Your task to perform on an android device: Open Google Chrome and click the shortcut for Amazon.com Image 0: 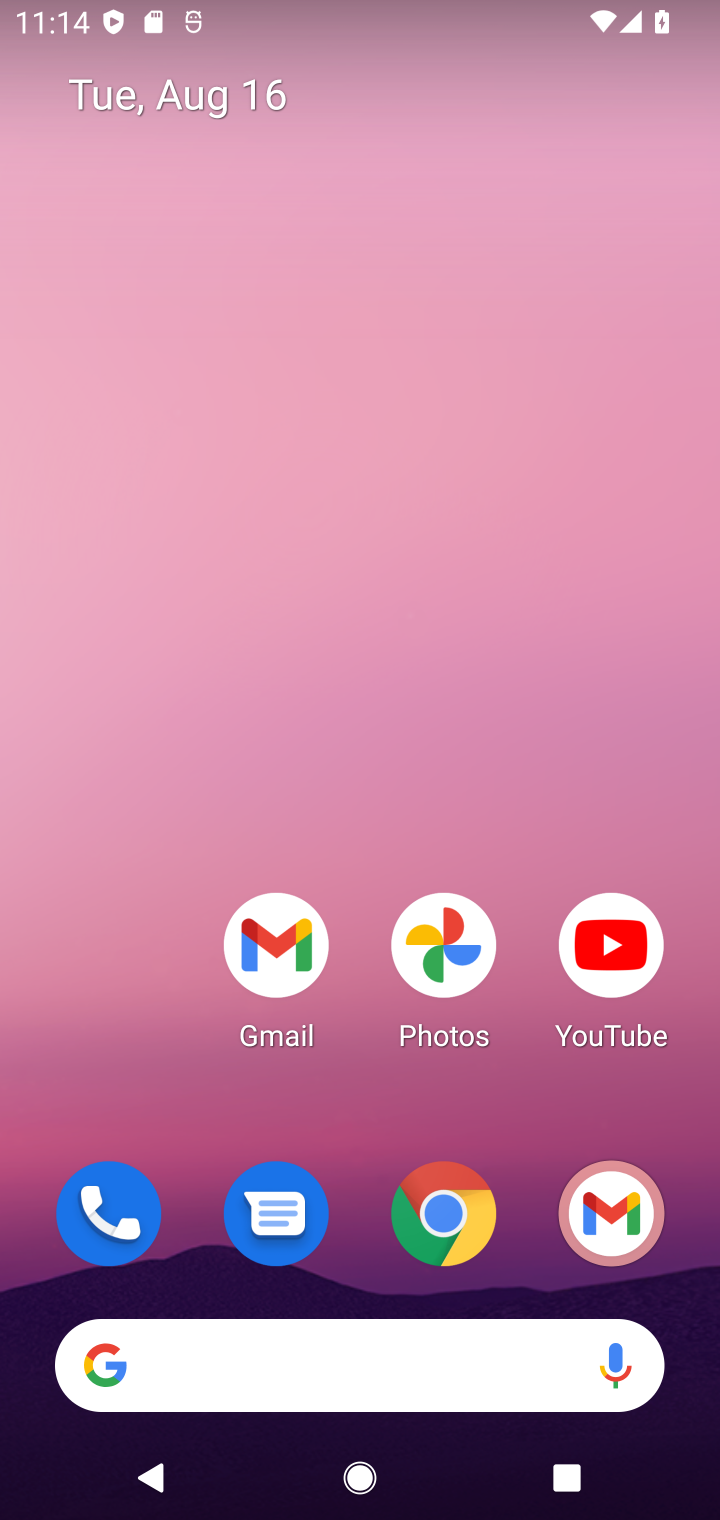
Step 0: drag from (350, 931) to (494, 172)
Your task to perform on an android device: Open Google Chrome and click the shortcut for Amazon.com Image 1: 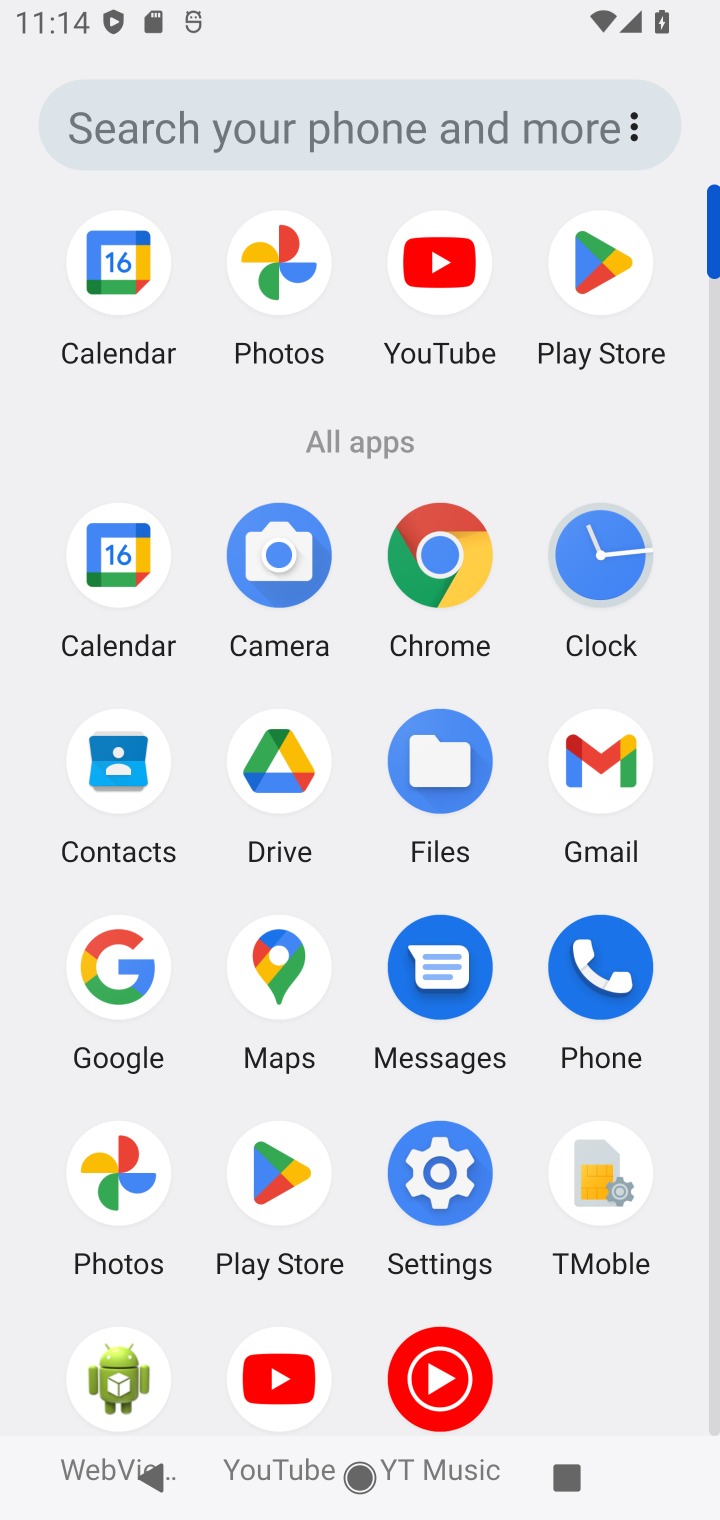
Step 1: click (442, 554)
Your task to perform on an android device: Open Google Chrome and click the shortcut for Amazon.com Image 2: 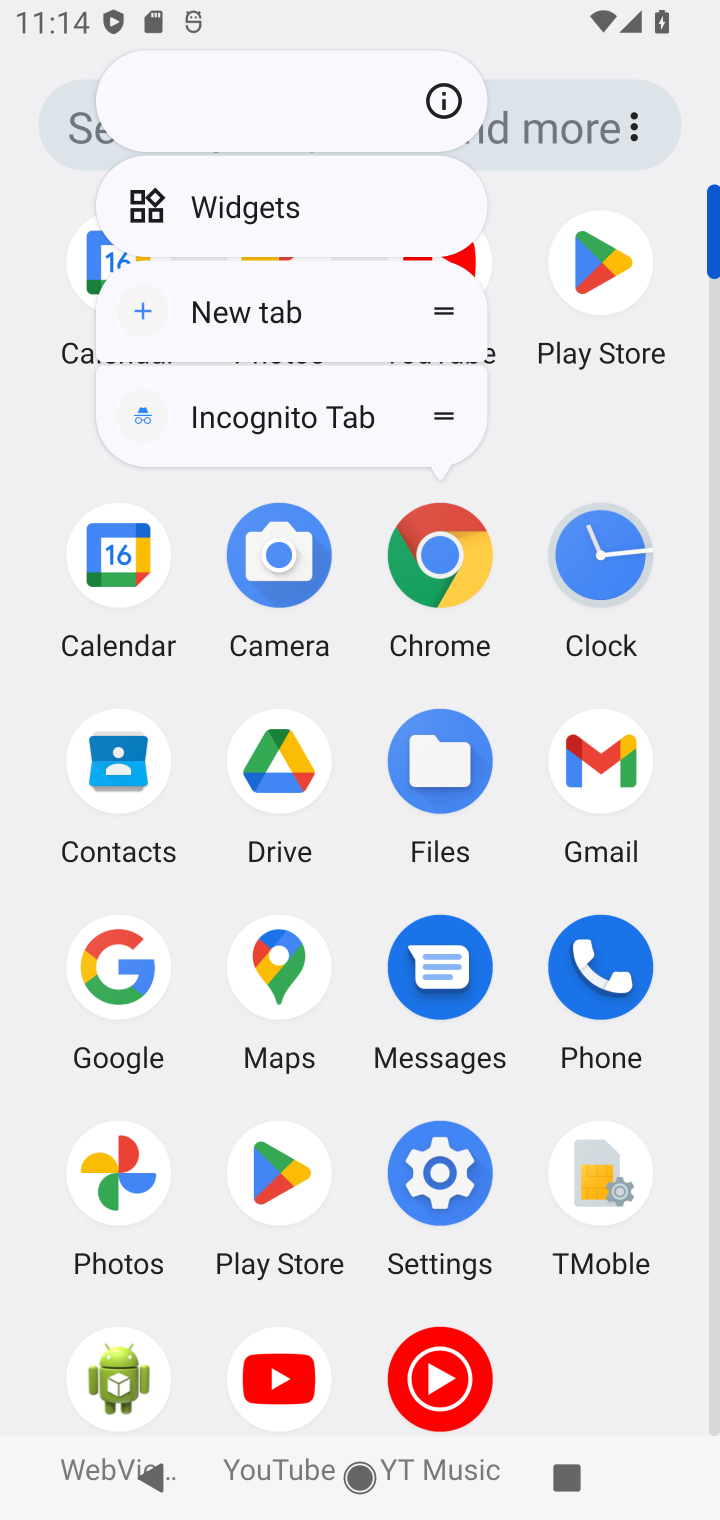
Step 2: click (448, 554)
Your task to perform on an android device: Open Google Chrome and click the shortcut for Amazon.com Image 3: 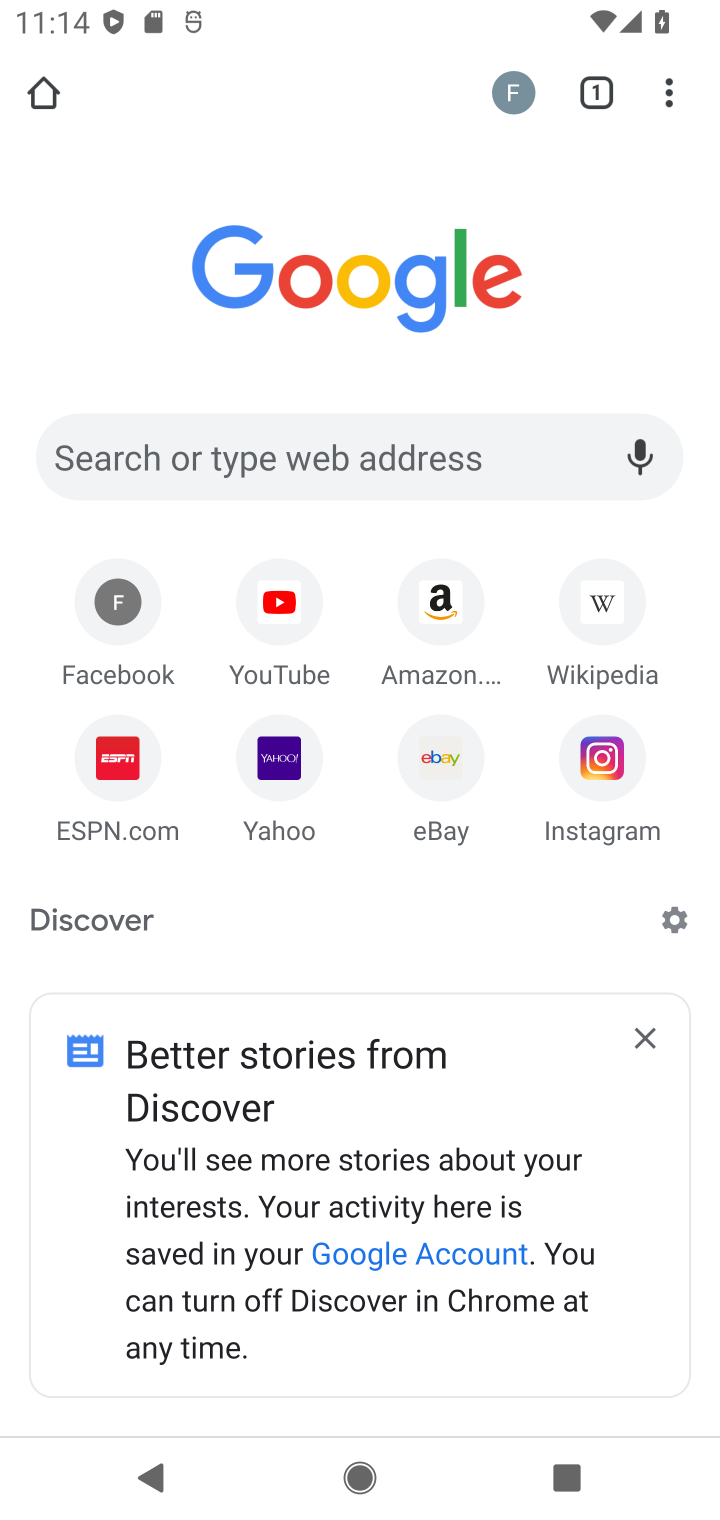
Step 3: click (438, 604)
Your task to perform on an android device: Open Google Chrome and click the shortcut for Amazon.com Image 4: 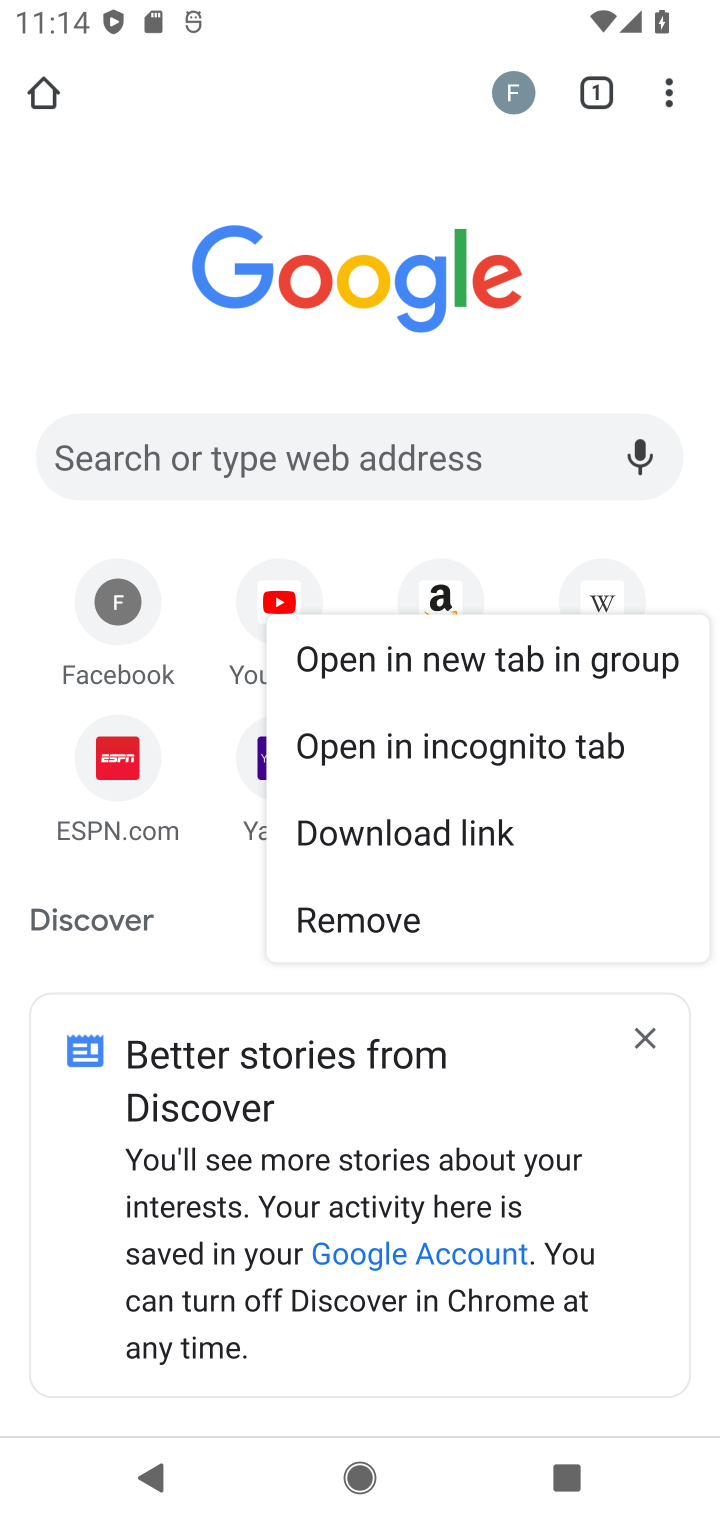
Step 4: click (438, 593)
Your task to perform on an android device: Open Google Chrome and click the shortcut for Amazon.com Image 5: 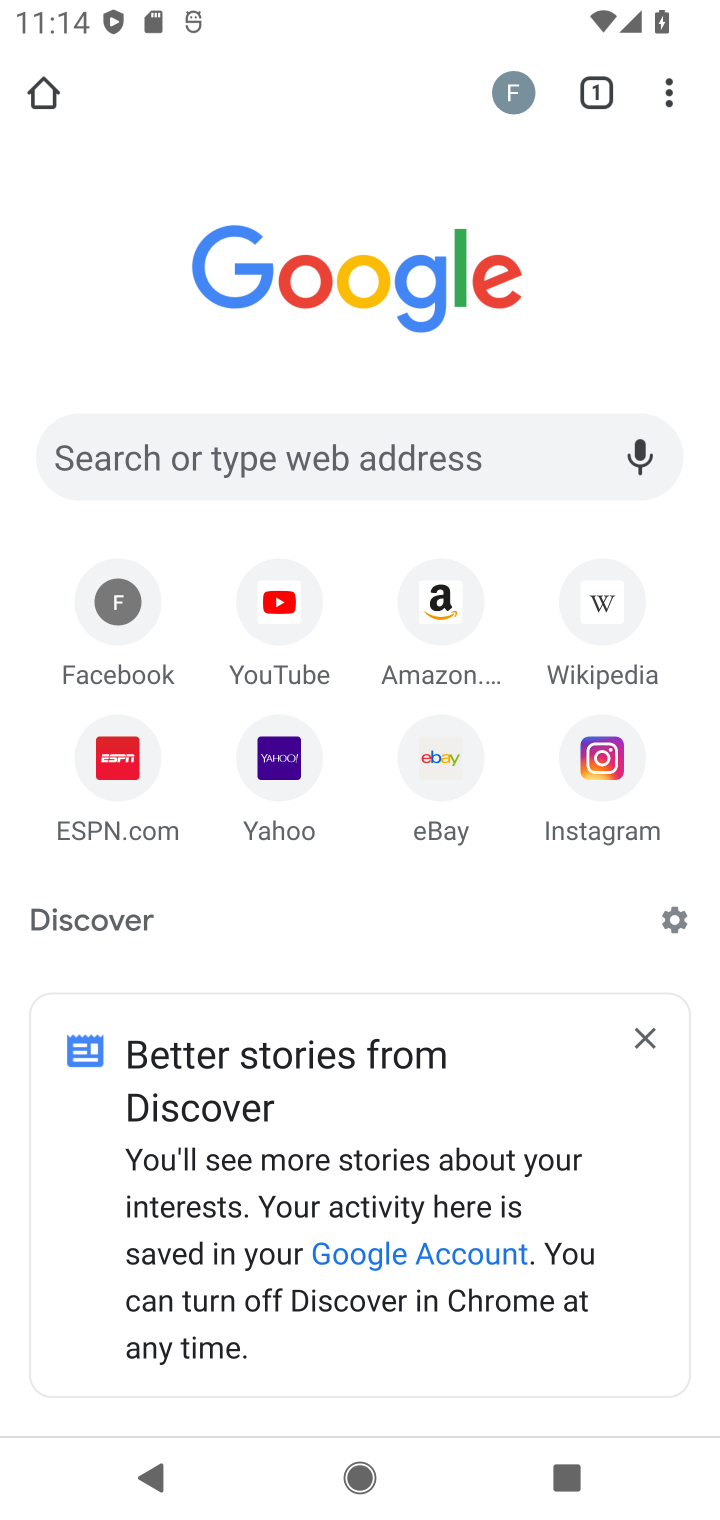
Step 5: click (438, 593)
Your task to perform on an android device: Open Google Chrome and click the shortcut for Amazon.com Image 6: 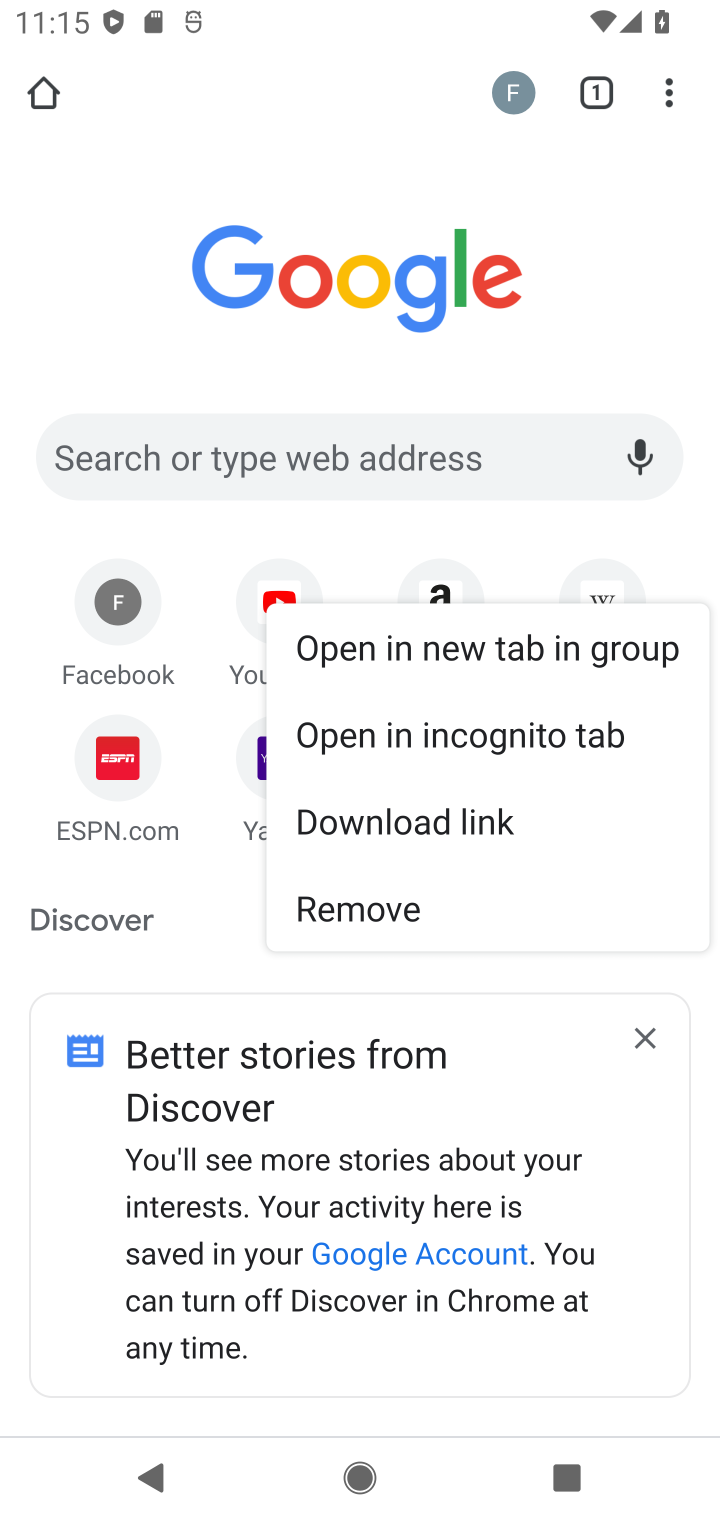
Step 6: click (514, 545)
Your task to perform on an android device: Open Google Chrome and click the shortcut for Amazon.com Image 7: 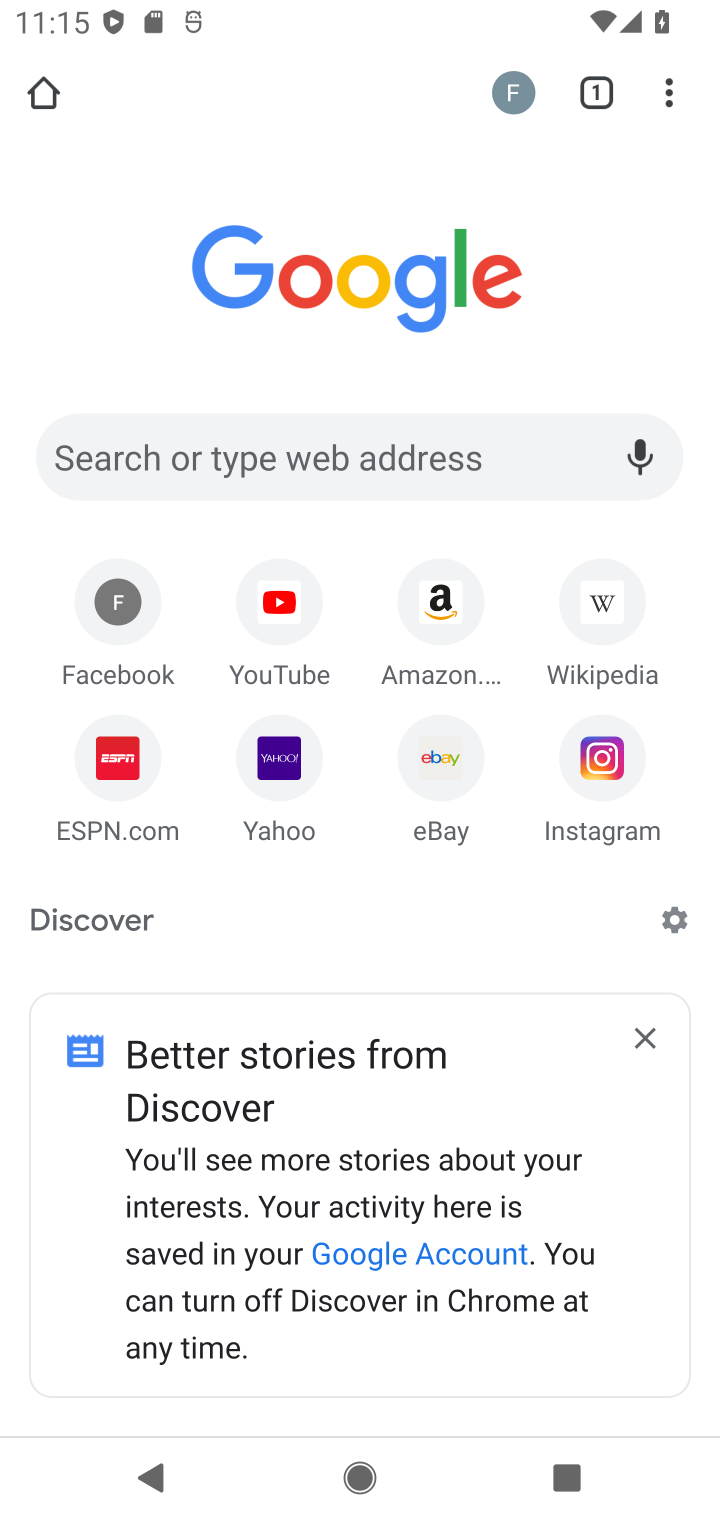
Step 7: click (443, 600)
Your task to perform on an android device: Open Google Chrome and click the shortcut for Amazon.com Image 8: 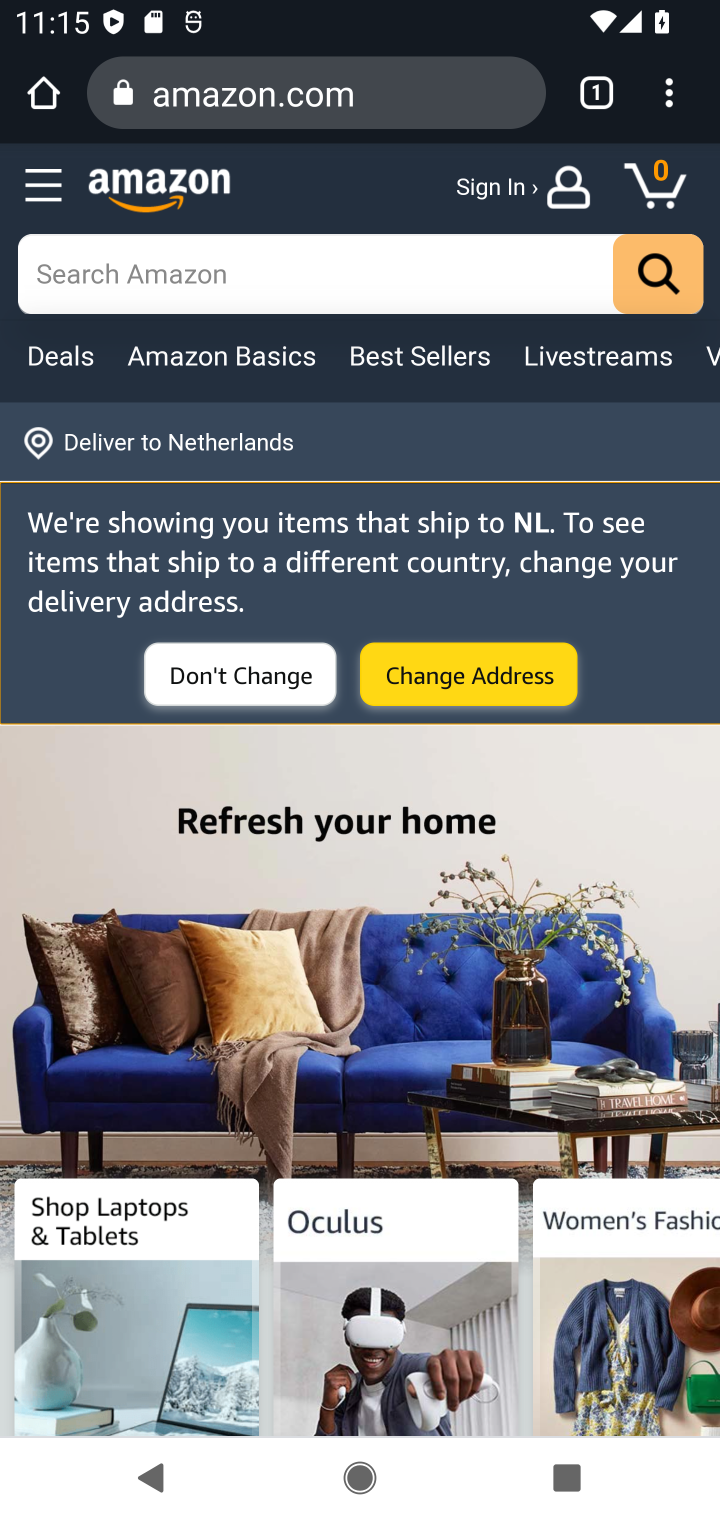
Step 8: task complete